Your task to perform on an android device: Open calendar and show me the second week of next month Image 0: 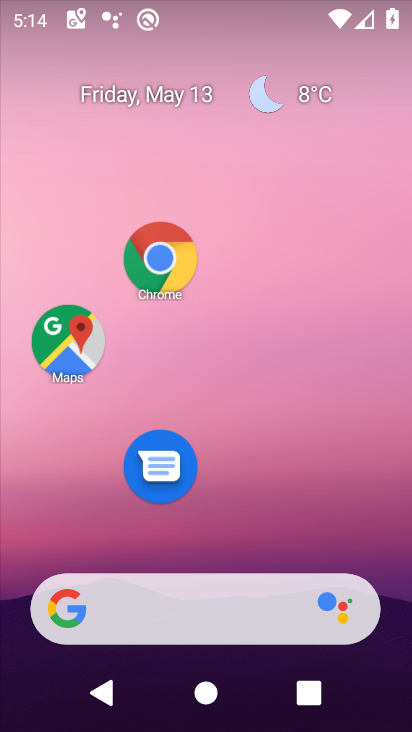
Step 0: drag from (350, 624) to (241, 157)
Your task to perform on an android device: Open calendar and show me the second week of next month Image 1: 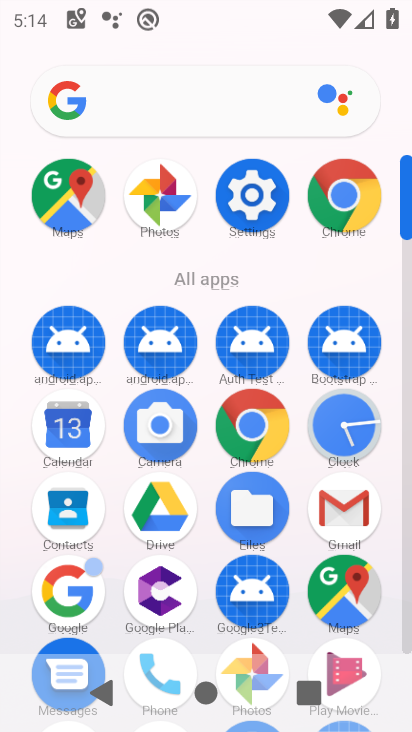
Step 1: drag from (333, 565) to (237, 28)
Your task to perform on an android device: Open calendar and show me the second week of next month Image 2: 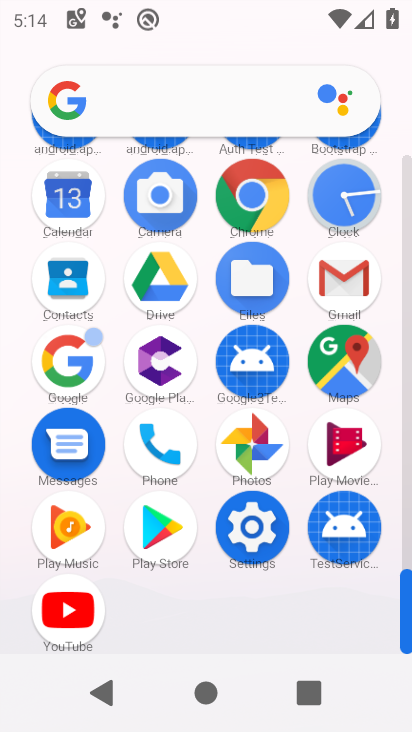
Step 2: click (53, 193)
Your task to perform on an android device: Open calendar and show me the second week of next month Image 3: 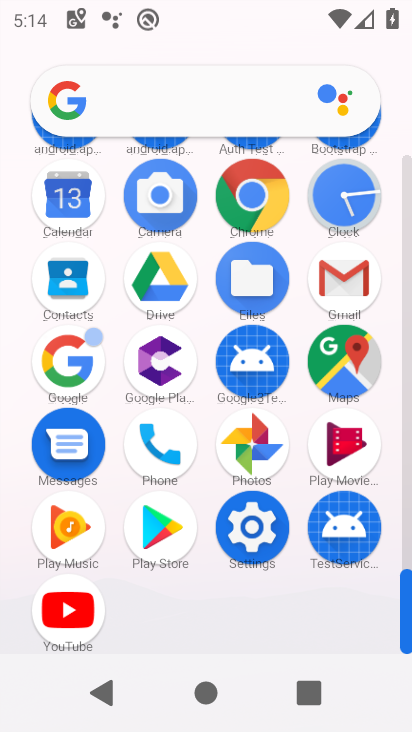
Step 3: click (51, 196)
Your task to perform on an android device: Open calendar and show me the second week of next month Image 4: 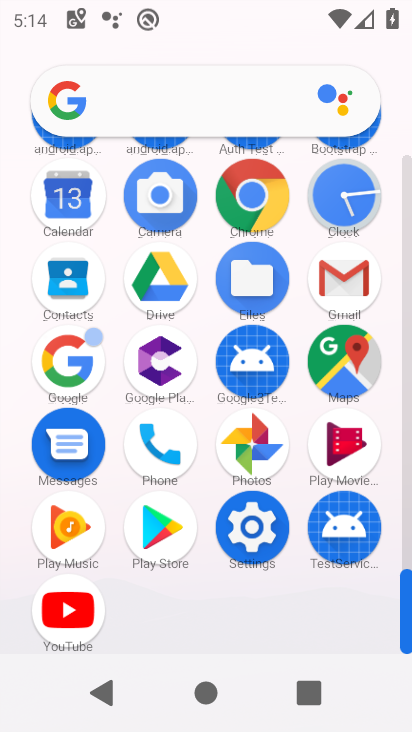
Step 4: click (51, 196)
Your task to perform on an android device: Open calendar and show me the second week of next month Image 5: 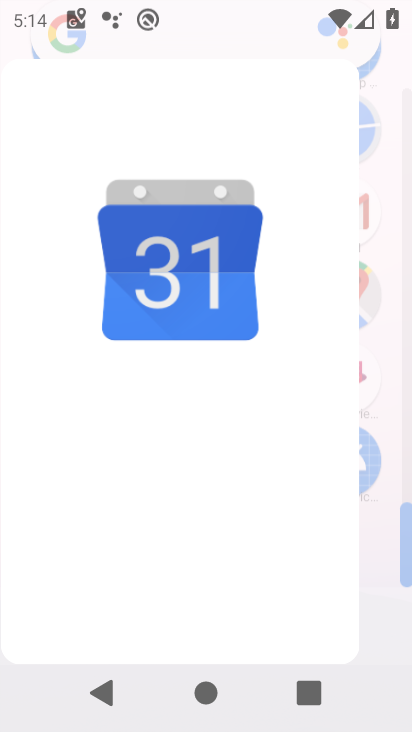
Step 5: click (65, 197)
Your task to perform on an android device: Open calendar and show me the second week of next month Image 6: 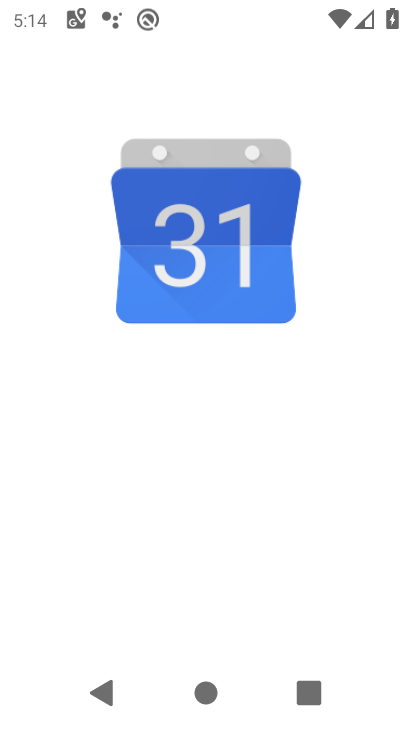
Step 6: click (70, 190)
Your task to perform on an android device: Open calendar and show me the second week of next month Image 7: 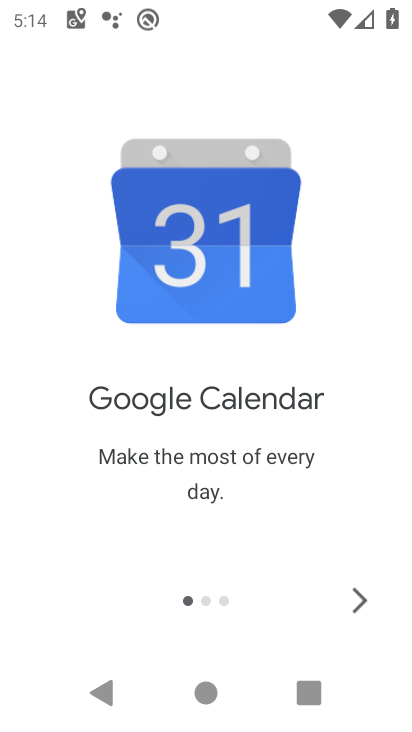
Step 7: click (356, 605)
Your task to perform on an android device: Open calendar and show me the second week of next month Image 8: 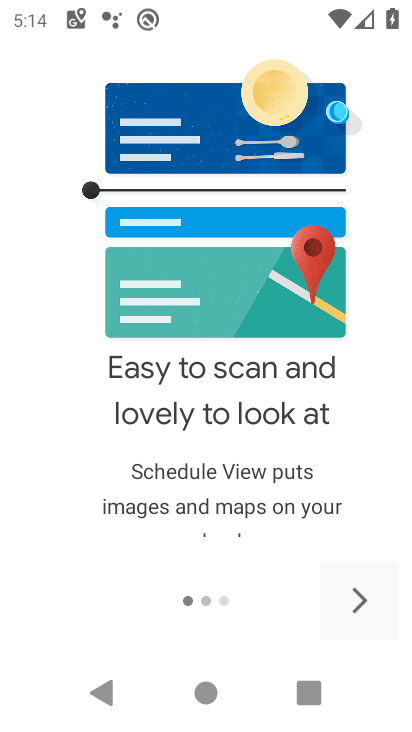
Step 8: click (356, 595)
Your task to perform on an android device: Open calendar and show me the second week of next month Image 9: 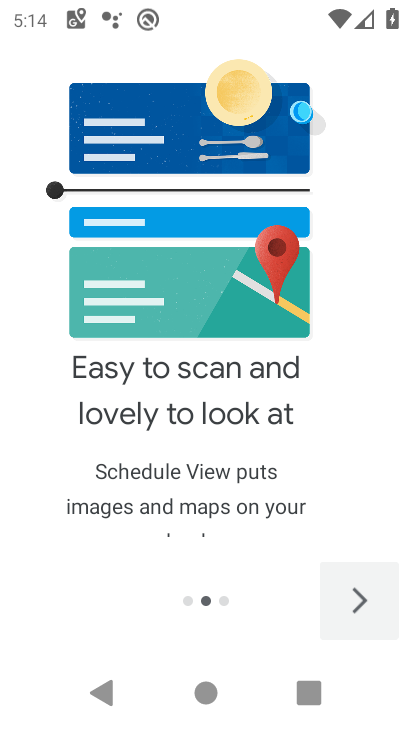
Step 9: click (344, 586)
Your task to perform on an android device: Open calendar and show me the second week of next month Image 10: 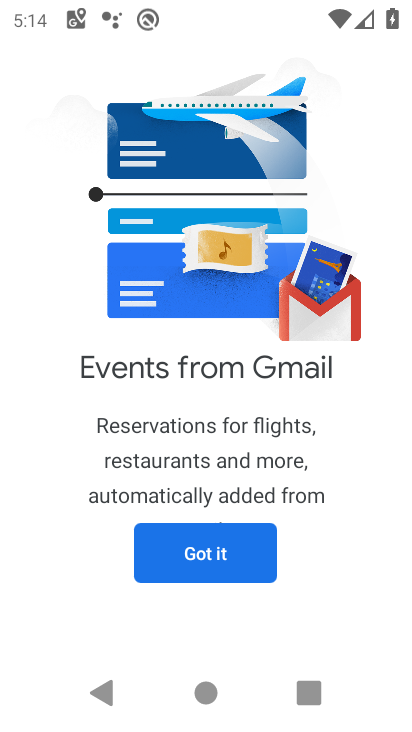
Step 10: click (342, 576)
Your task to perform on an android device: Open calendar and show me the second week of next month Image 11: 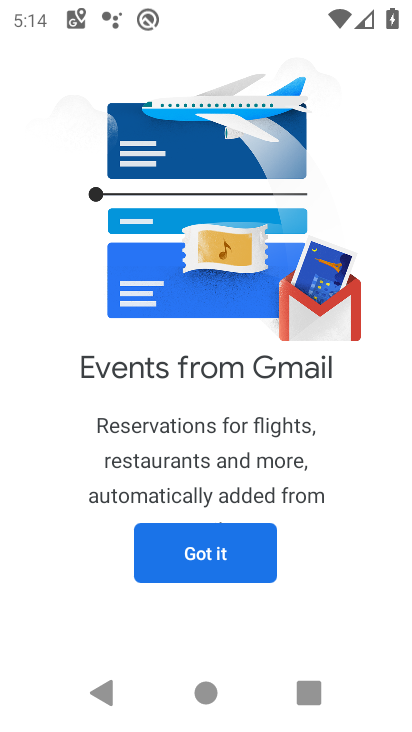
Step 11: click (360, 601)
Your task to perform on an android device: Open calendar and show me the second week of next month Image 12: 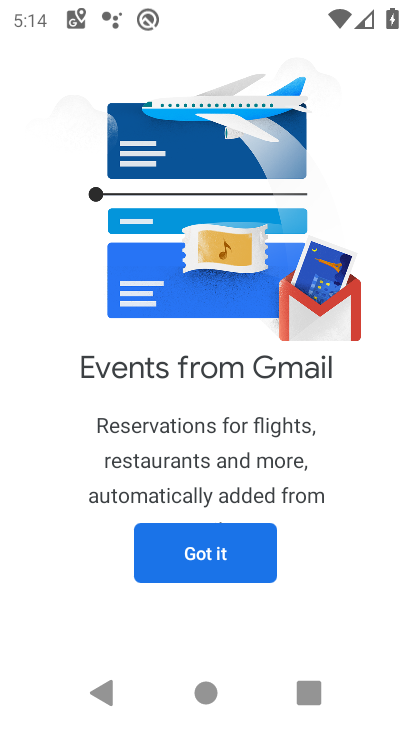
Step 12: click (354, 598)
Your task to perform on an android device: Open calendar and show me the second week of next month Image 13: 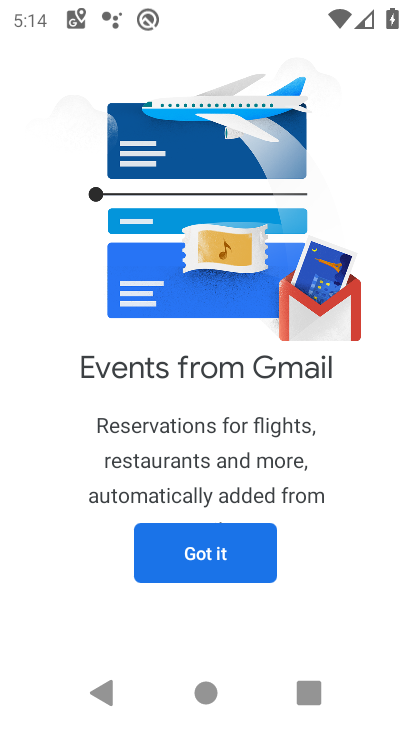
Step 13: click (371, 600)
Your task to perform on an android device: Open calendar and show me the second week of next month Image 14: 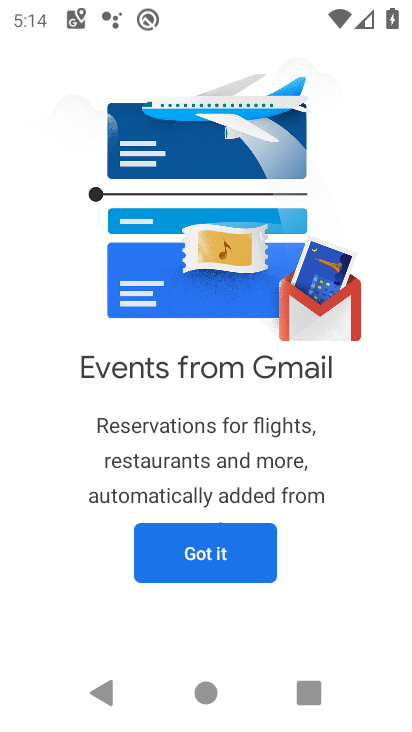
Step 14: click (246, 546)
Your task to perform on an android device: Open calendar and show me the second week of next month Image 15: 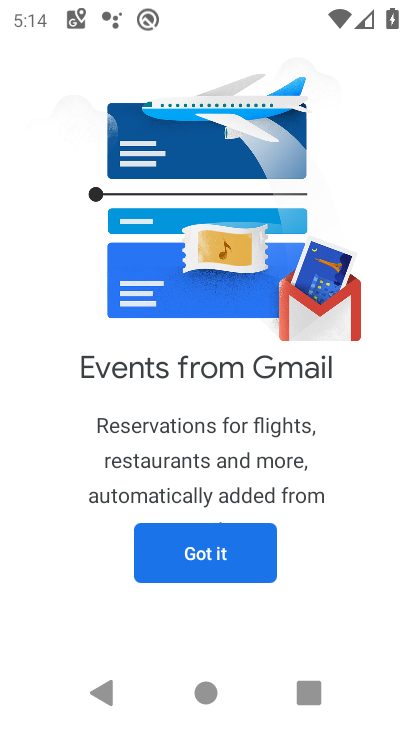
Step 15: click (244, 544)
Your task to perform on an android device: Open calendar and show me the second week of next month Image 16: 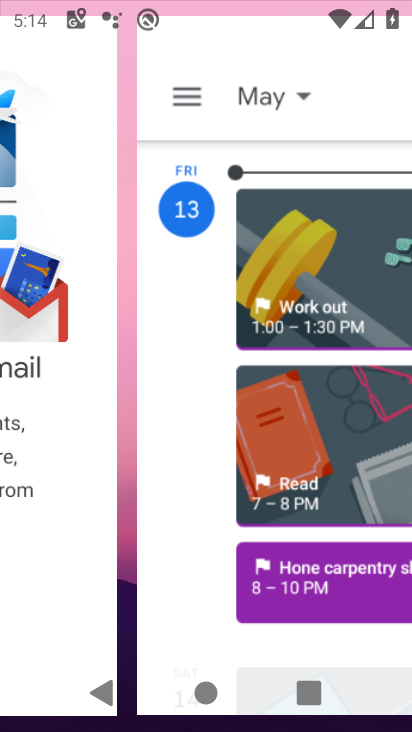
Step 16: click (217, 542)
Your task to perform on an android device: Open calendar and show me the second week of next month Image 17: 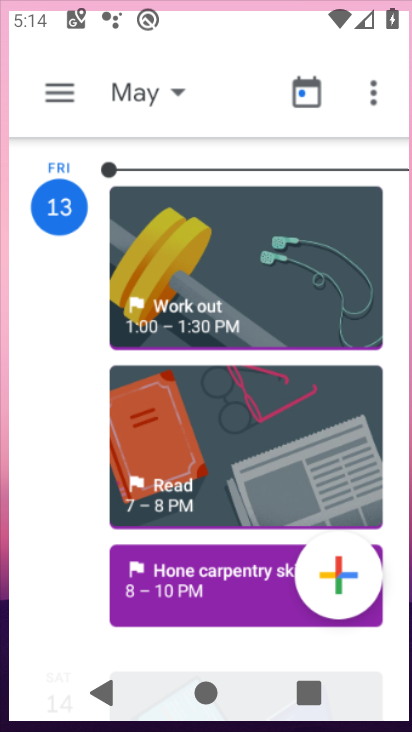
Step 17: click (214, 560)
Your task to perform on an android device: Open calendar and show me the second week of next month Image 18: 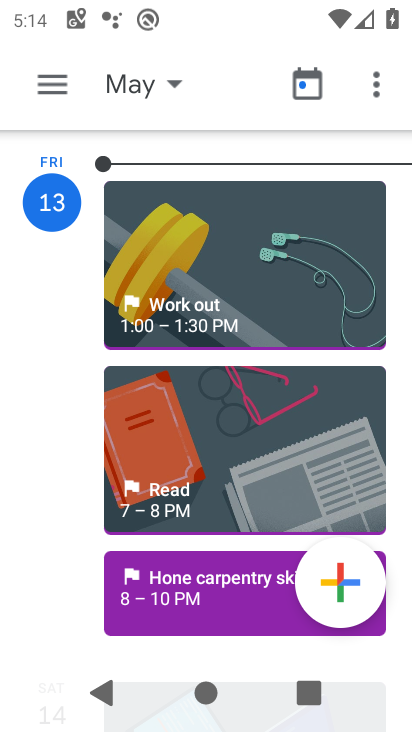
Step 18: click (213, 543)
Your task to perform on an android device: Open calendar and show me the second week of next month Image 19: 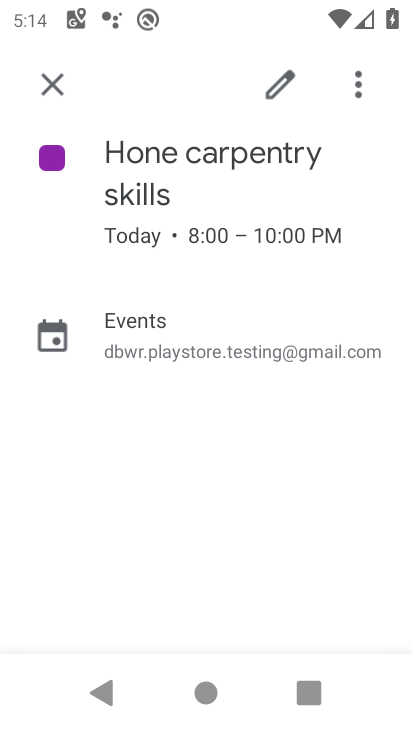
Step 19: click (63, 76)
Your task to perform on an android device: Open calendar and show me the second week of next month Image 20: 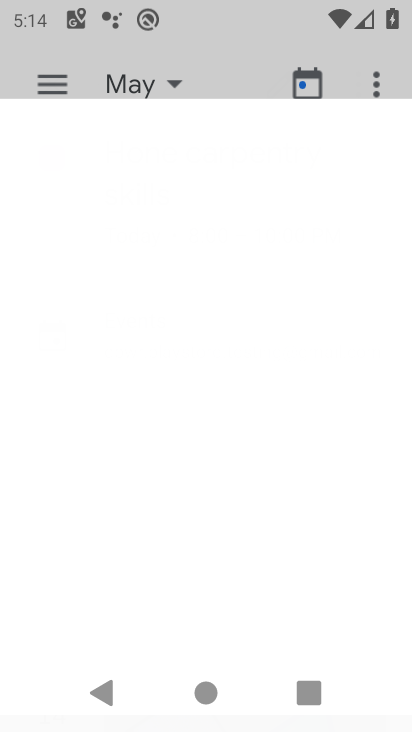
Step 20: click (62, 76)
Your task to perform on an android device: Open calendar and show me the second week of next month Image 21: 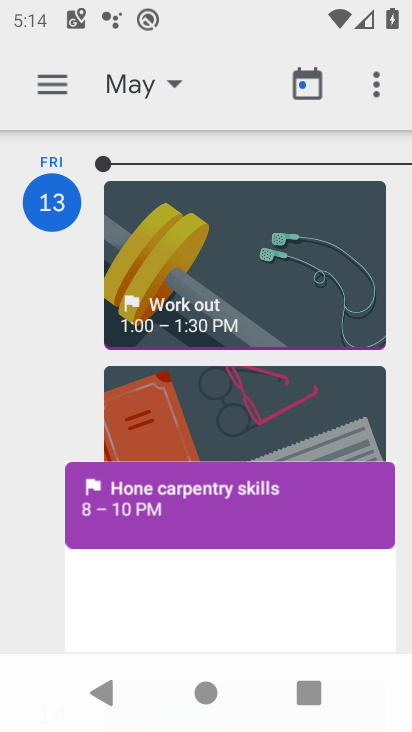
Step 21: click (62, 76)
Your task to perform on an android device: Open calendar and show me the second week of next month Image 22: 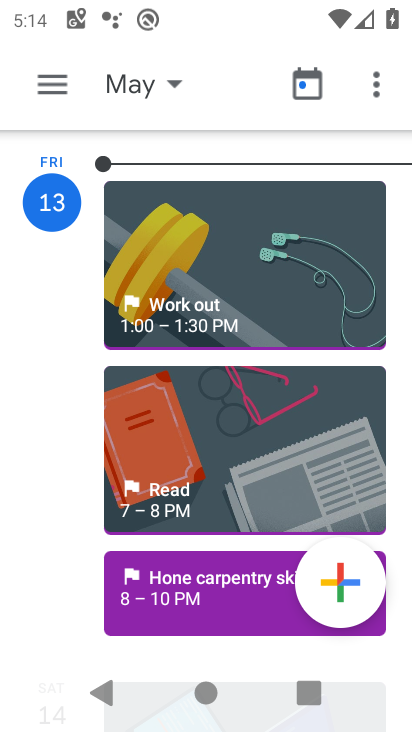
Step 22: click (163, 89)
Your task to perform on an android device: Open calendar and show me the second week of next month Image 23: 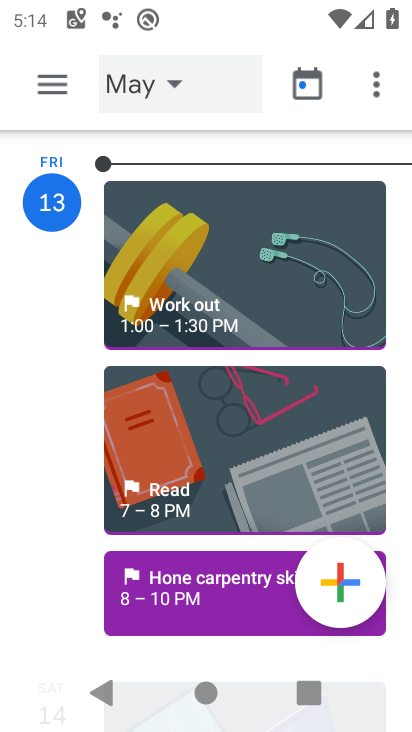
Step 23: click (167, 86)
Your task to perform on an android device: Open calendar and show me the second week of next month Image 24: 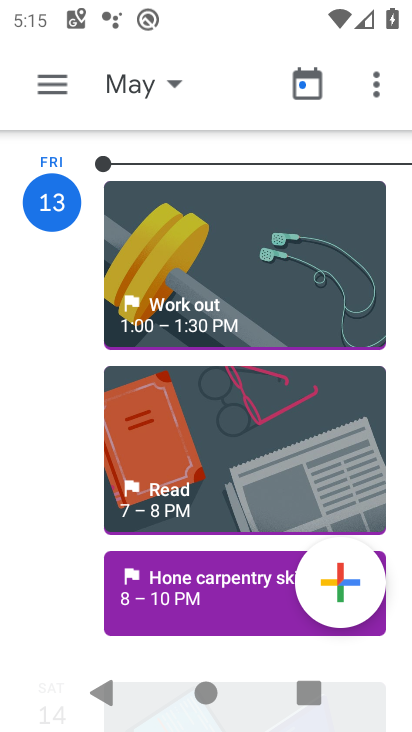
Step 24: drag from (265, 288) to (143, 430)
Your task to perform on an android device: Open calendar and show me the second week of next month Image 25: 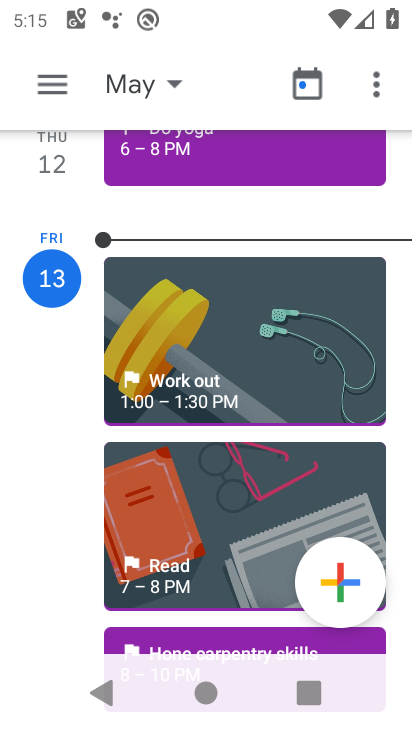
Step 25: drag from (209, 355) to (5, 377)
Your task to perform on an android device: Open calendar and show me the second week of next month Image 26: 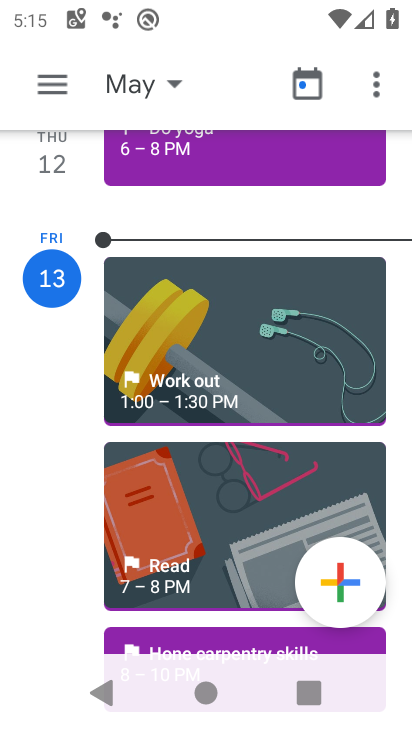
Step 26: drag from (181, 334) to (4, 354)
Your task to perform on an android device: Open calendar and show me the second week of next month Image 27: 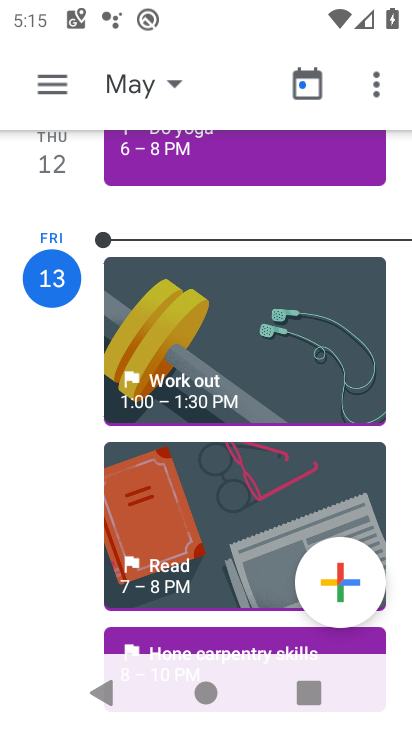
Step 27: click (10, 386)
Your task to perform on an android device: Open calendar and show me the second week of next month Image 28: 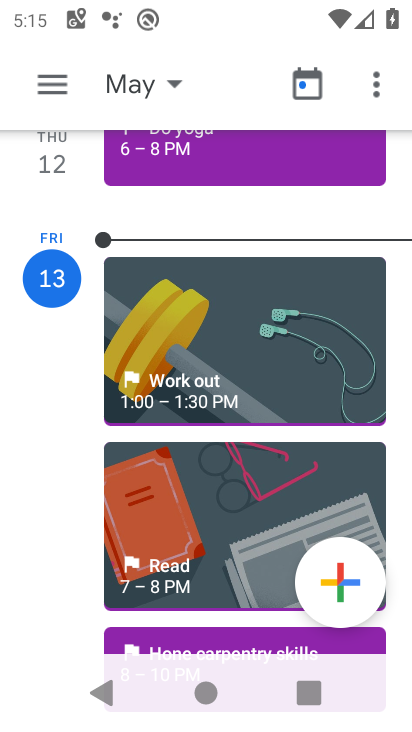
Step 28: drag from (65, 279) to (17, 344)
Your task to perform on an android device: Open calendar and show me the second week of next month Image 29: 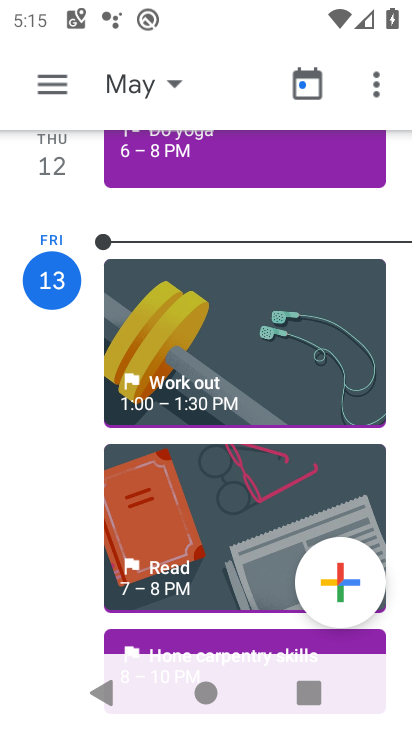
Step 29: click (14, 348)
Your task to perform on an android device: Open calendar and show me the second week of next month Image 30: 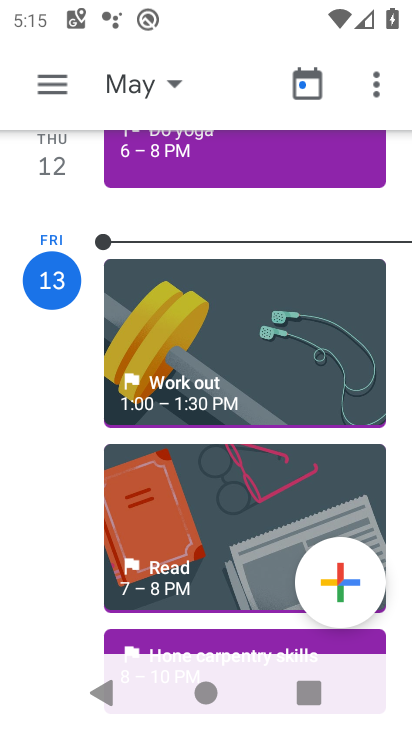
Step 30: drag from (165, 424) to (1, 350)
Your task to perform on an android device: Open calendar and show me the second week of next month Image 31: 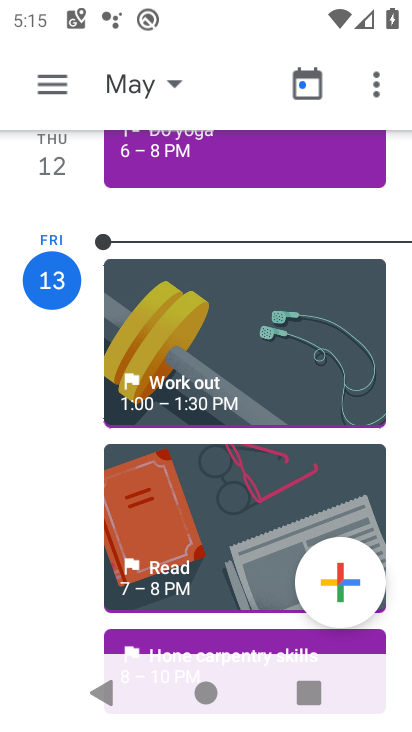
Step 31: drag from (42, 306) to (335, 341)
Your task to perform on an android device: Open calendar and show me the second week of next month Image 32: 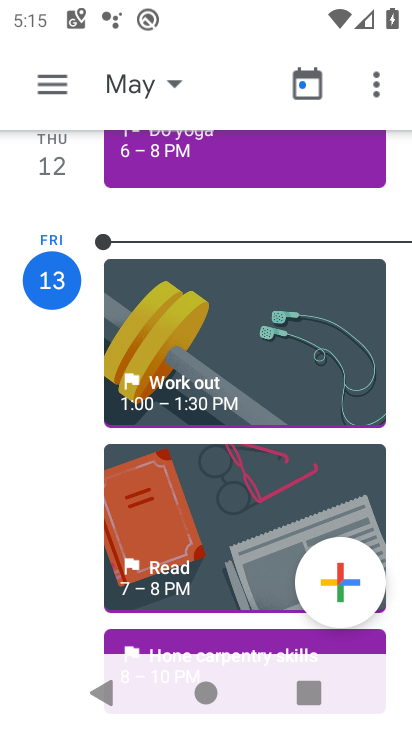
Step 32: click (77, 368)
Your task to perform on an android device: Open calendar and show me the second week of next month Image 33: 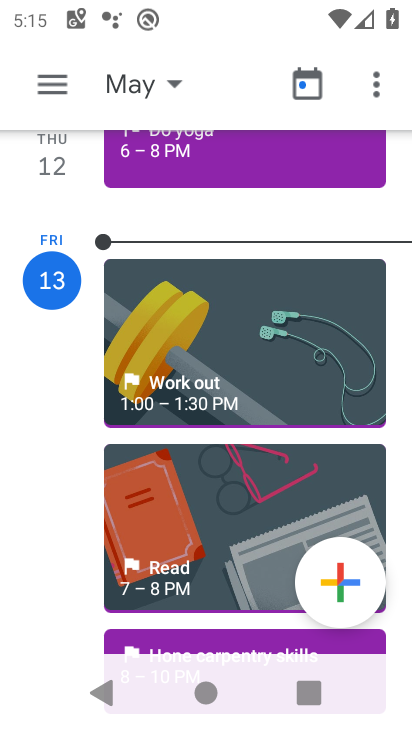
Step 33: drag from (208, 326) to (14, 344)
Your task to perform on an android device: Open calendar and show me the second week of next month Image 34: 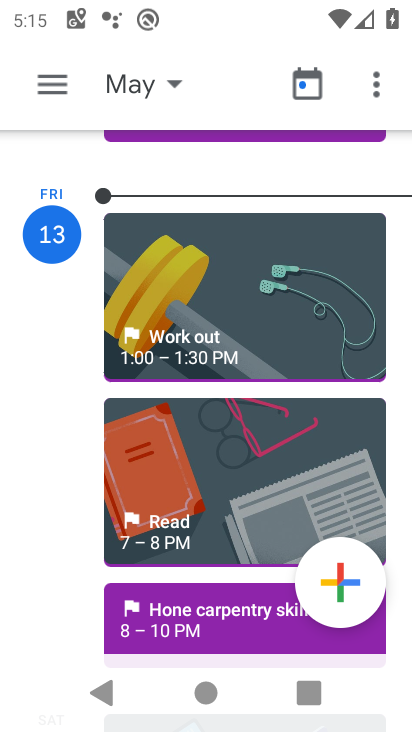
Step 34: drag from (264, 305) to (58, 357)
Your task to perform on an android device: Open calendar and show me the second week of next month Image 35: 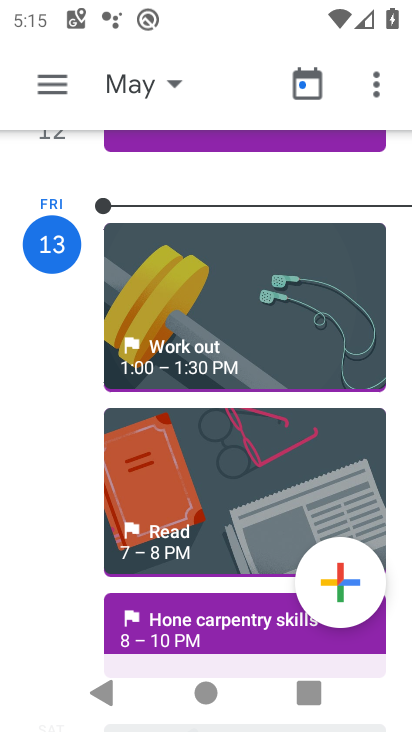
Step 35: drag from (285, 329) to (59, 217)
Your task to perform on an android device: Open calendar and show me the second week of next month Image 36: 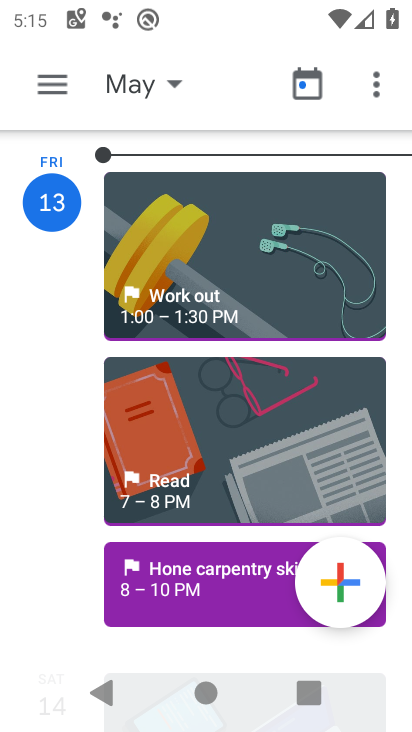
Step 36: click (159, 78)
Your task to perform on an android device: Open calendar and show me the second week of next month Image 37: 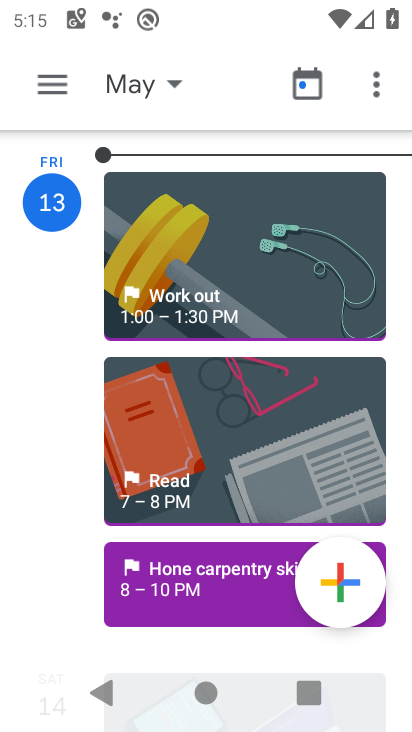
Step 37: click (174, 84)
Your task to perform on an android device: Open calendar and show me the second week of next month Image 38: 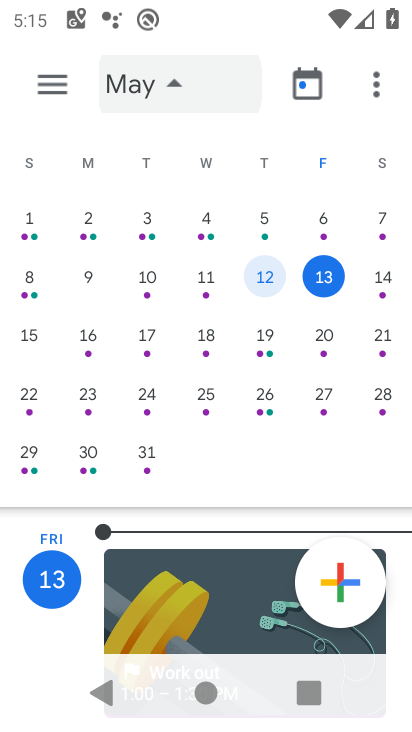
Step 38: click (174, 84)
Your task to perform on an android device: Open calendar and show me the second week of next month Image 39: 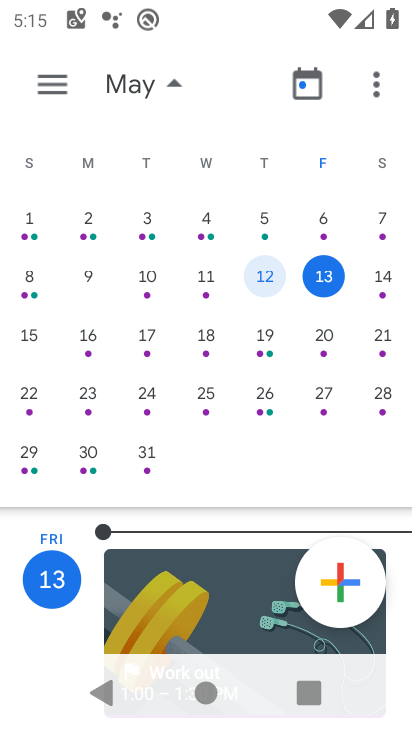
Step 39: click (174, 84)
Your task to perform on an android device: Open calendar and show me the second week of next month Image 40: 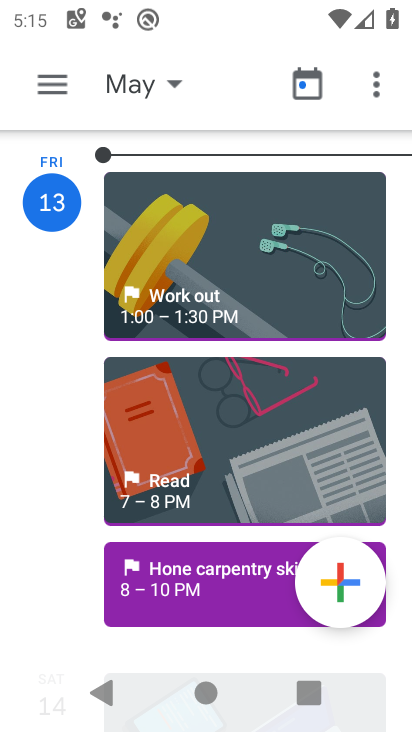
Step 40: click (168, 85)
Your task to perform on an android device: Open calendar and show me the second week of next month Image 41: 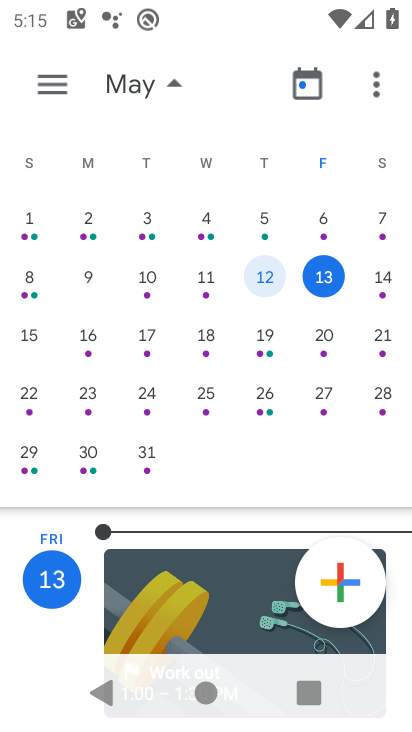
Step 41: drag from (304, 330) to (18, 311)
Your task to perform on an android device: Open calendar and show me the second week of next month Image 42: 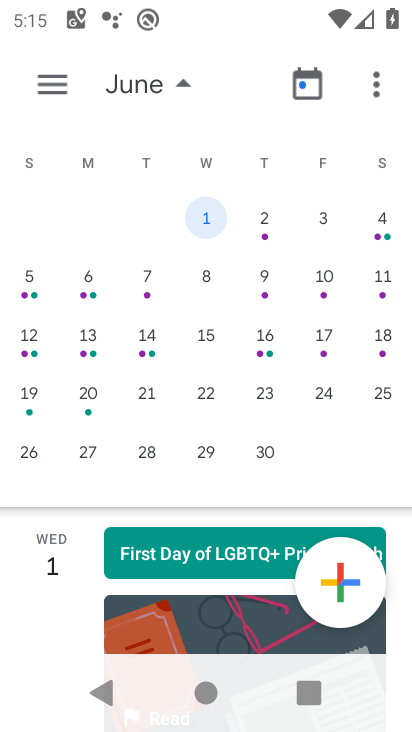
Step 42: drag from (264, 320) to (0, 367)
Your task to perform on an android device: Open calendar and show me the second week of next month Image 43: 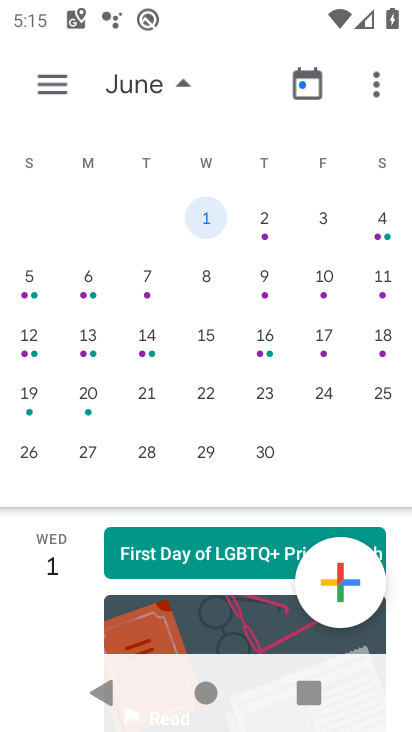
Step 43: drag from (319, 328) to (104, 388)
Your task to perform on an android device: Open calendar and show me the second week of next month Image 44: 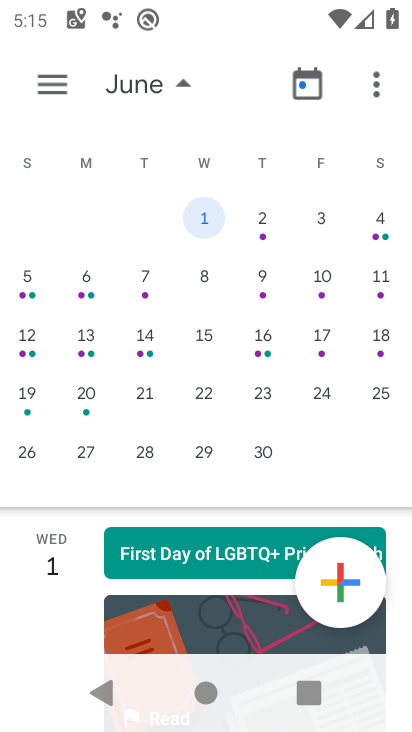
Step 44: drag from (257, 319) to (9, 353)
Your task to perform on an android device: Open calendar and show me the second week of next month Image 45: 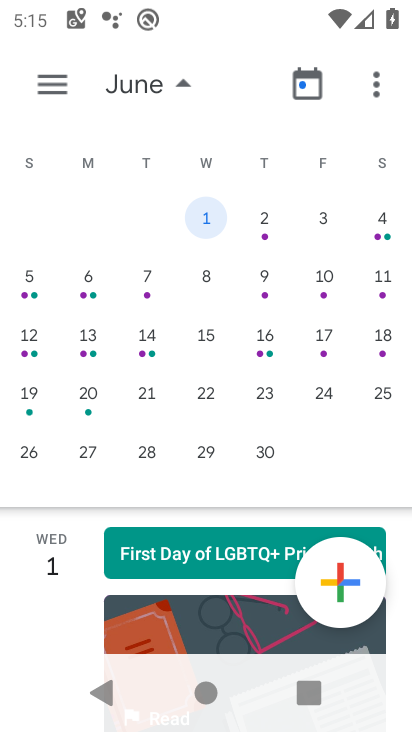
Step 45: drag from (288, 332) to (125, 340)
Your task to perform on an android device: Open calendar and show me the second week of next month Image 46: 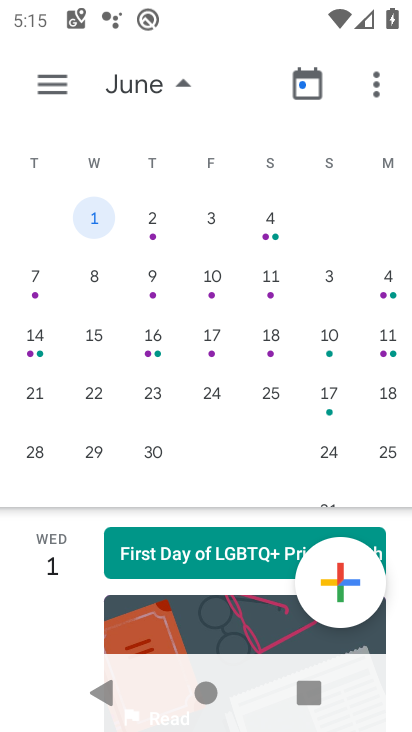
Step 46: drag from (205, 328) to (51, 348)
Your task to perform on an android device: Open calendar and show me the second week of next month Image 47: 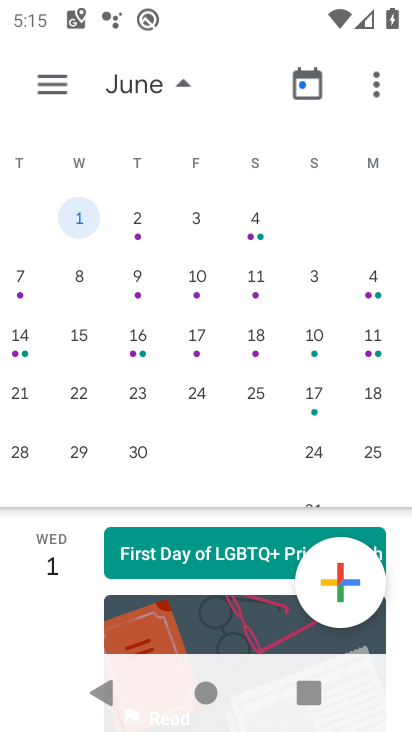
Step 47: drag from (273, 340) to (50, 355)
Your task to perform on an android device: Open calendar and show me the second week of next month Image 48: 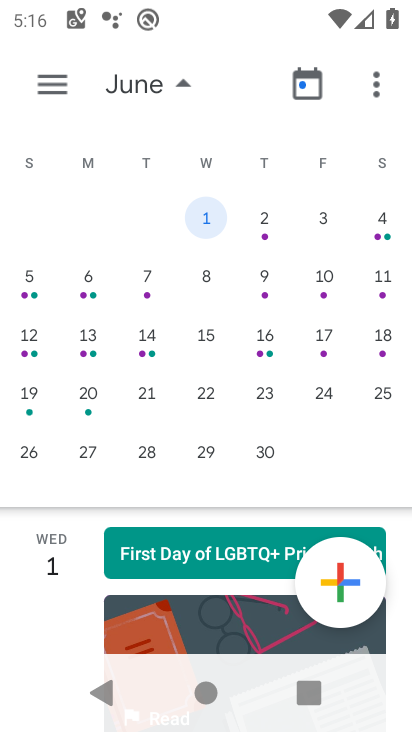
Step 48: click (204, 277)
Your task to perform on an android device: Open calendar and show me the second week of next month Image 49: 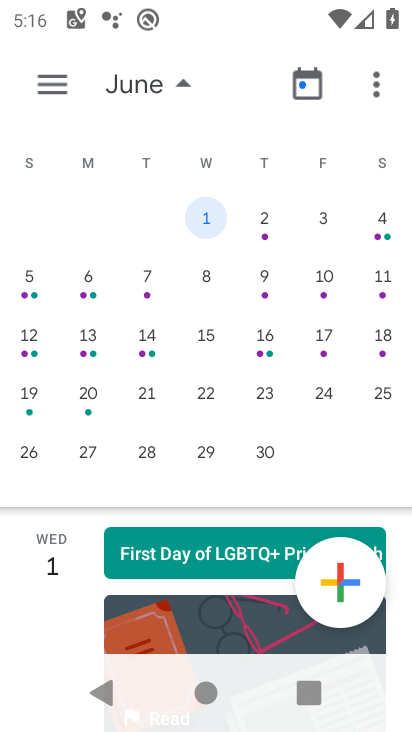
Step 49: click (202, 276)
Your task to perform on an android device: Open calendar and show me the second week of next month Image 50: 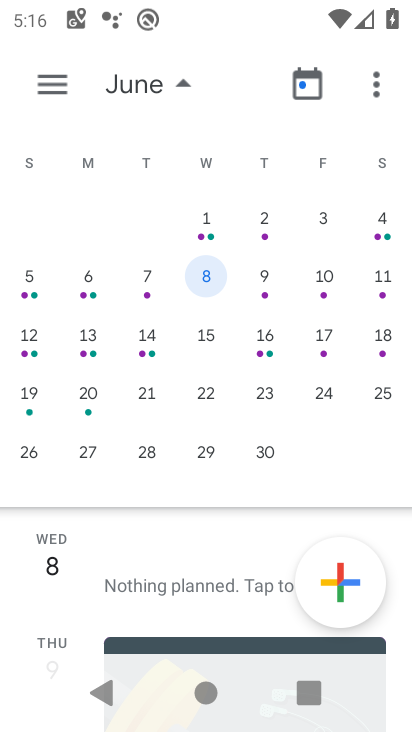
Step 50: click (192, 276)
Your task to perform on an android device: Open calendar and show me the second week of next month Image 51: 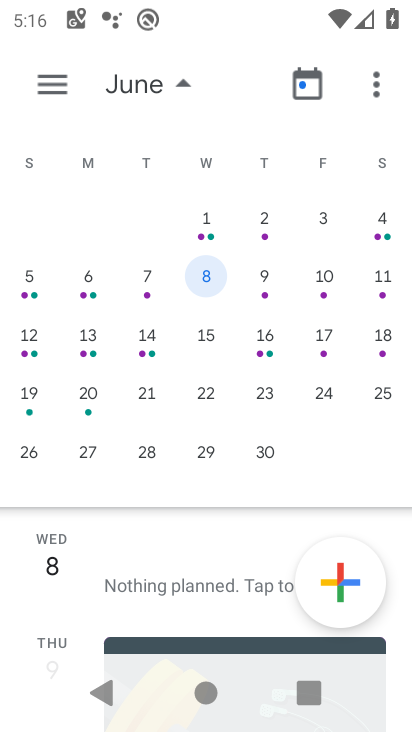
Step 51: task complete